Your task to perform on an android device: change the clock display to show seconds Image 0: 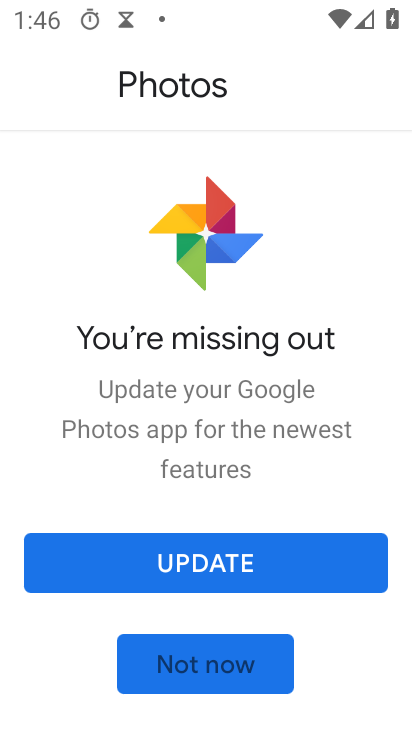
Step 0: press home button
Your task to perform on an android device: change the clock display to show seconds Image 1: 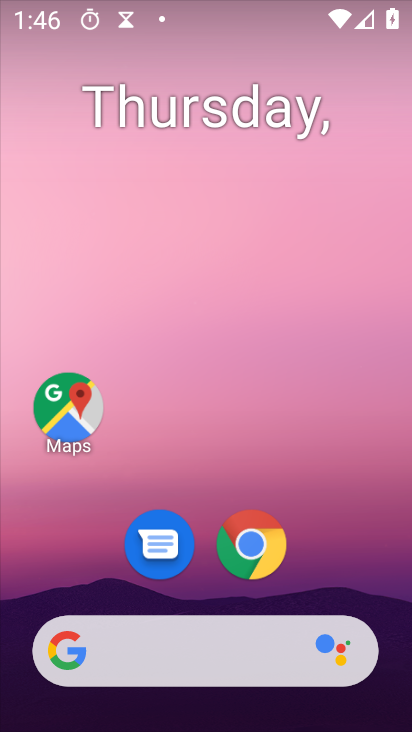
Step 1: drag from (245, 716) to (212, 195)
Your task to perform on an android device: change the clock display to show seconds Image 2: 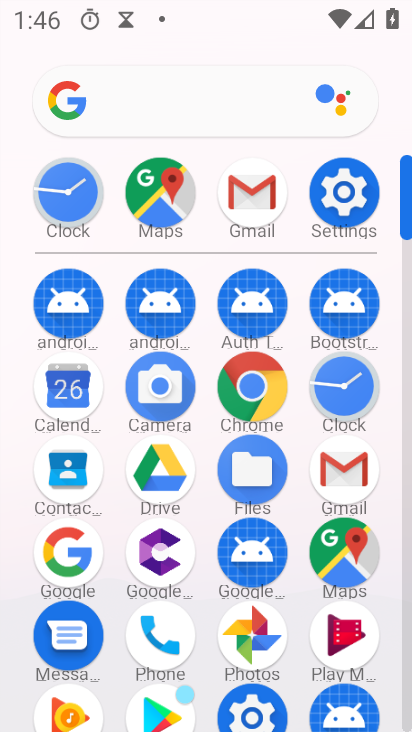
Step 2: click (342, 373)
Your task to perform on an android device: change the clock display to show seconds Image 3: 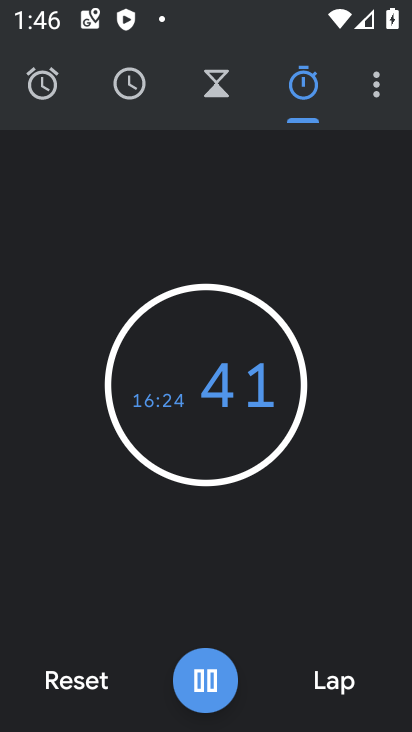
Step 3: click (380, 94)
Your task to perform on an android device: change the clock display to show seconds Image 4: 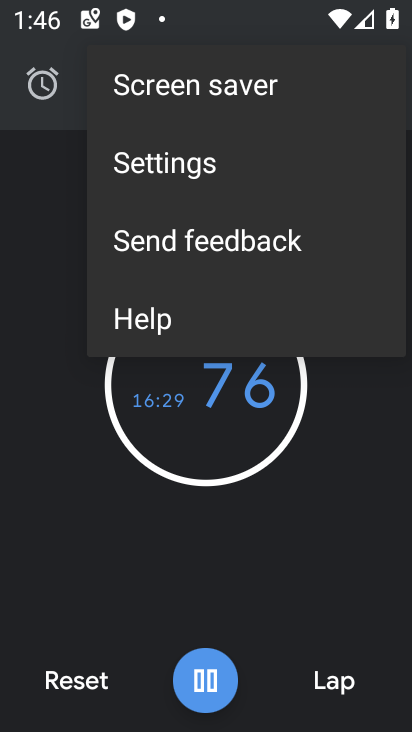
Step 4: click (186, 157)
Your task to perform on an android device: change the clock display to show seconds Image 5: 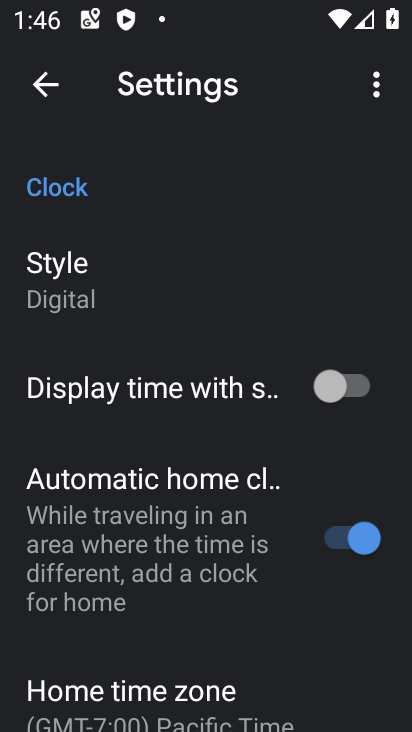
Step 5: drag from (173, 606) to (166, 338)
Your task to perform on an android device: change the clock display to show seconds Image 6: 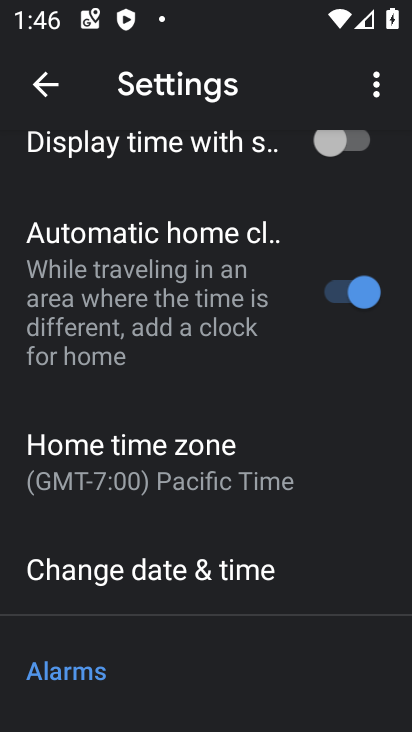
Step 6: click (357, 140)
Your task to perform on an android device: change the clock display to show seconds Image 7: 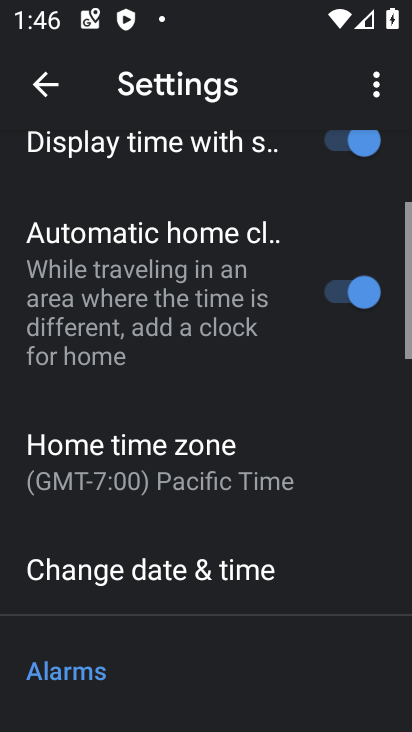
Step 7: task complete